Your task to perform on an android device: find snoozed emails in the gmail app Image 0: 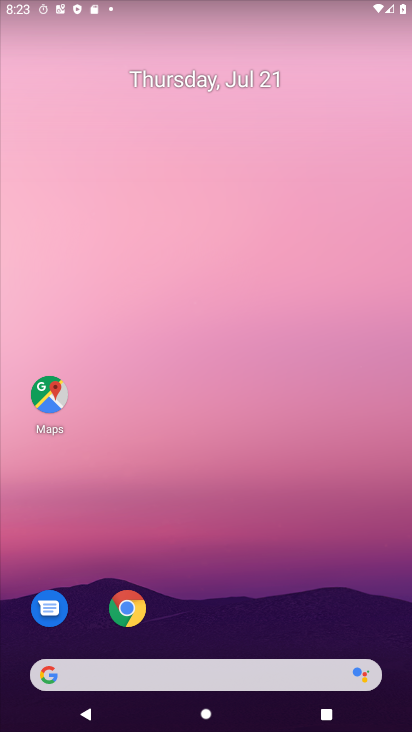
Step 0: press home button
Your task to perform on an android device: find snoozed emails in the gmail app Image 1: 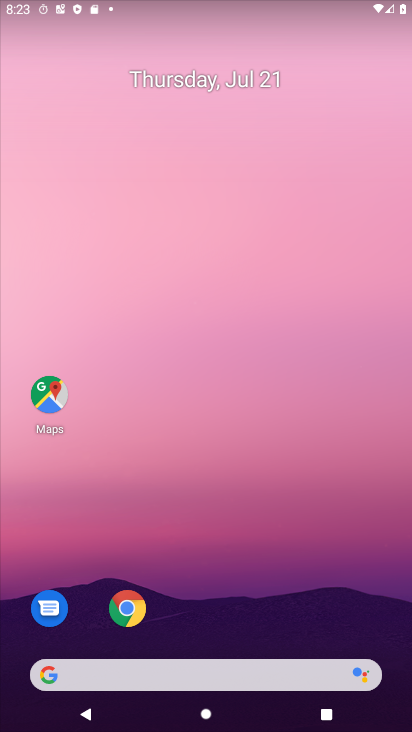
Step 1: drag from (314, 630) to (397, 46)
Your task to perform on an android device: find snoozed emails in the gmail app Image 2: 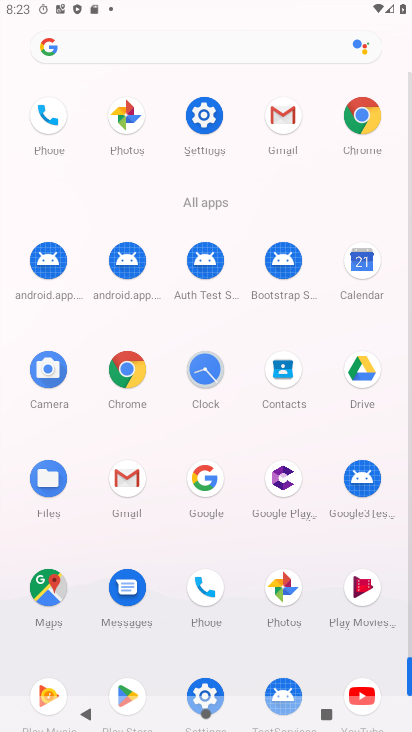
Step 2: click (134, 494)
Your task to perform on an android device: find snoozed emails in the gmail app Image 3: 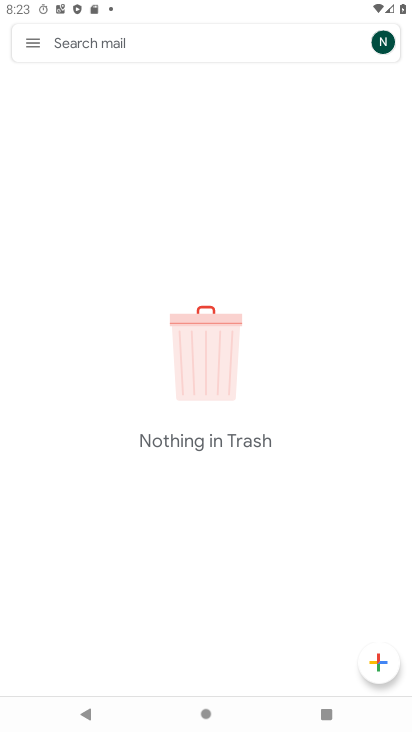
Step 3: click (37, 46)
Your task to perform on an android device: find snoozed emails in the gmail app Image 4: 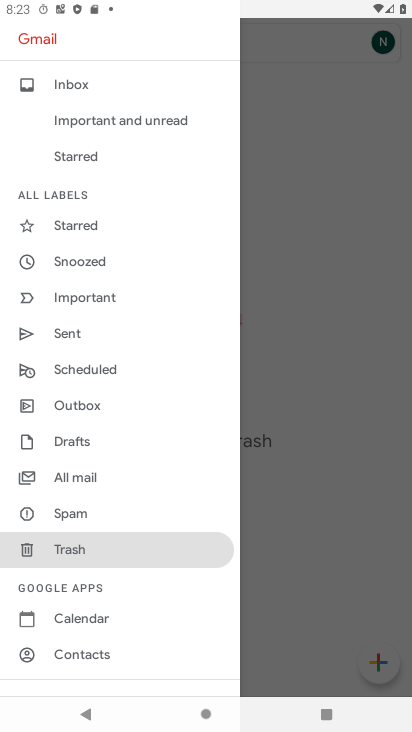
Step 4: click (75, 267)
Your task to perform on an android device: find snoozed emails in the gmail app Image 5: 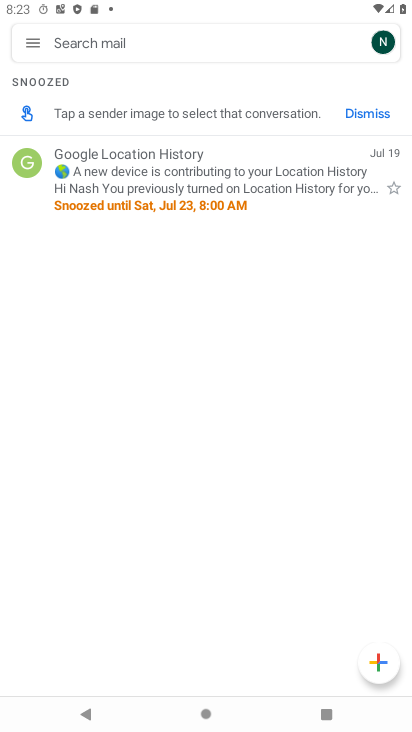
Step 5: task complete